Your task to perform on an android device: allow notifications from all sites in the chrome app Image 0: 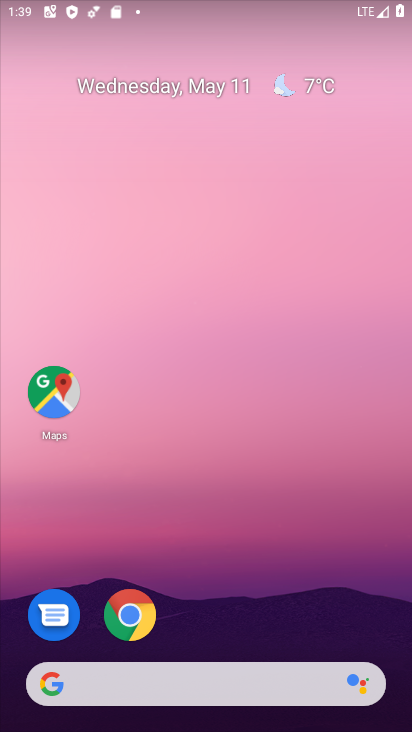
Step 0: click (134, 616)
Your task to perform on an android device: allow notifications from all sites in the chrome app Image 1: 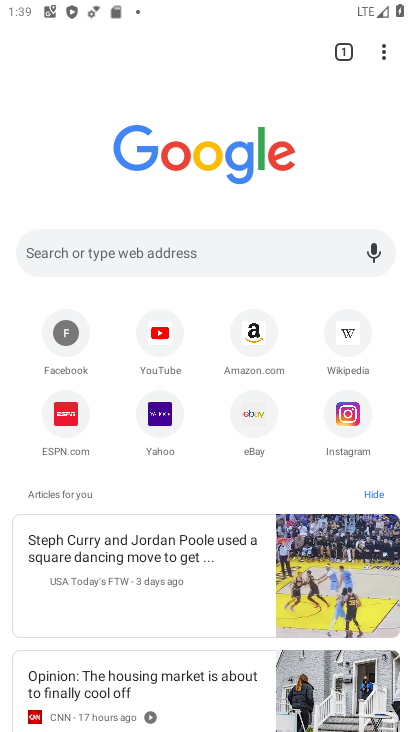
Step 1: drag from (393, 49) to (236, 447)
Your task to perform on an android device: allow notifications from all sites in the chrome app Image 2: 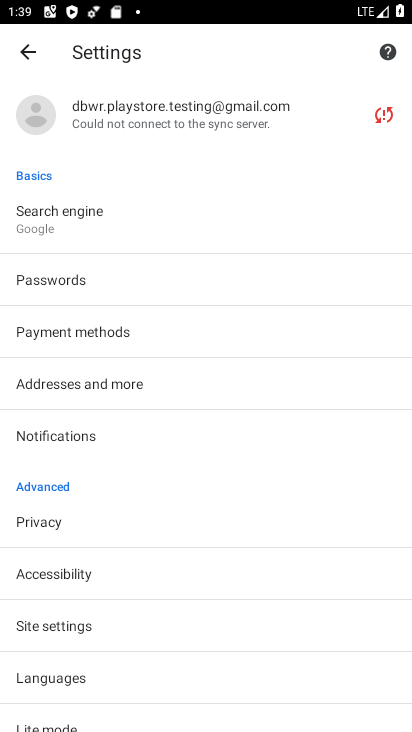
Step 2: drag from (205, 636) to (250, 401)
Your task to perform on an android device: allow notifications from all sites in the chrome app Image 3: 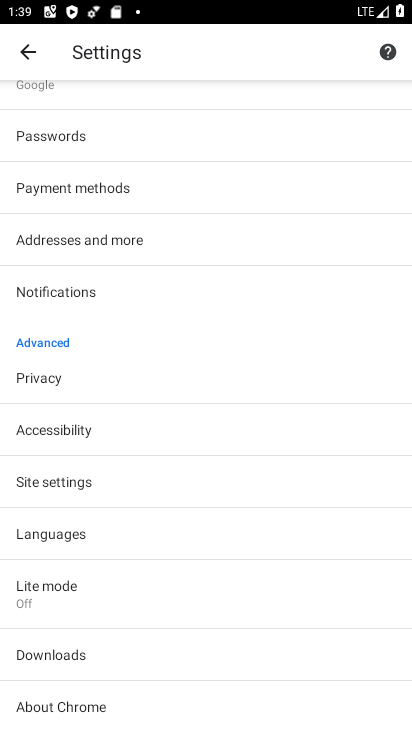
Step 3: click (76, 290)
Your task to perform on an android device: allow notifications from all sites in the chrome app Image 4: 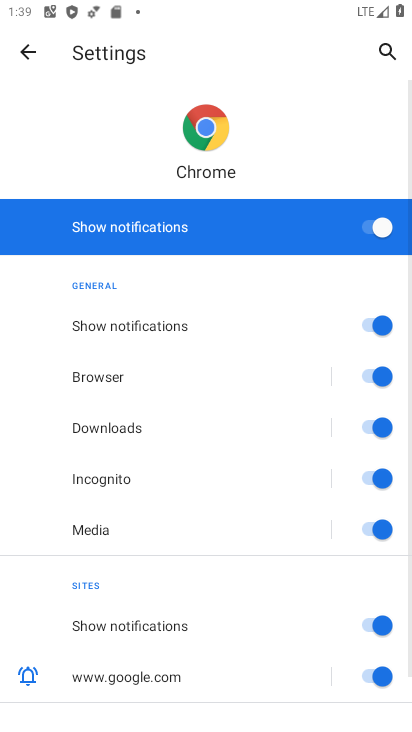
Step 4: task complete